Your task to perform on an android device: change the clock display to analog Image 0: 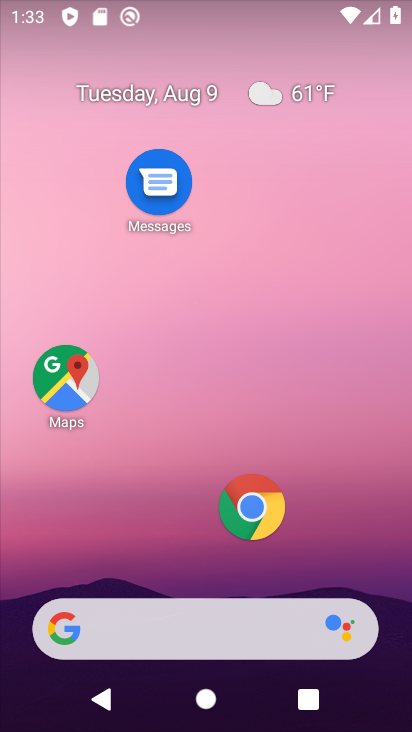
Step 0: drag from (258, 183) to (274, 112)
Your task to perform on an android device: change the clock display to analog Image 1: 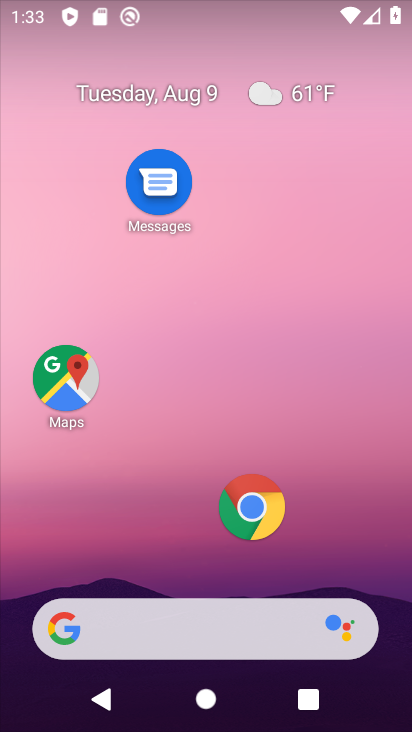
Step 1: drag from (134, 544) to (334, 12)
Your task to perform on an android device: change the clock display to analog Image 2: 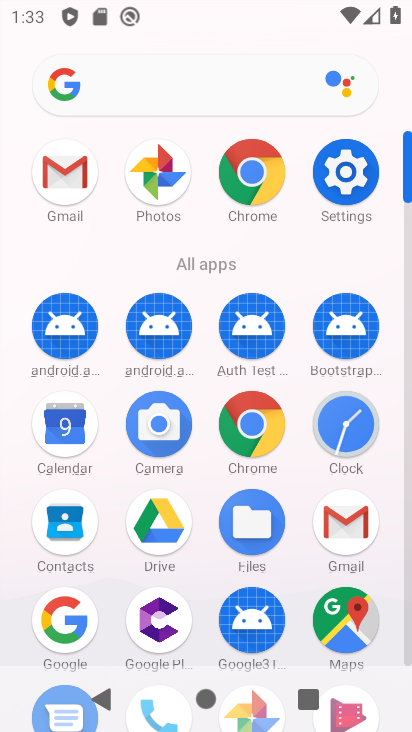
Step 2: click (347, 427)
Your task to perform on an android device: change the clock display to analog Image 3: 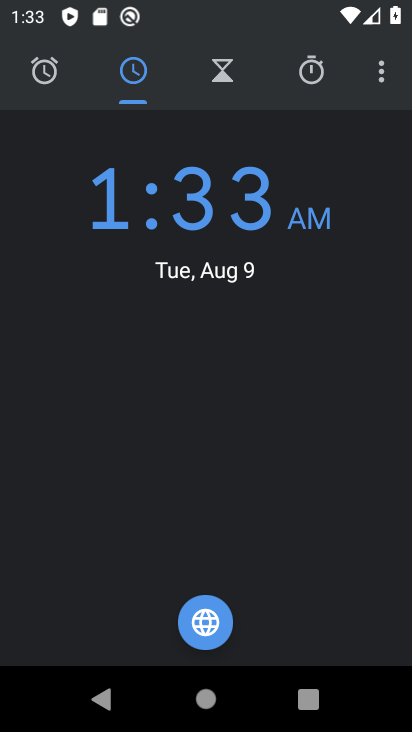
Step 3: click (377, 74)
Your task to perform on an android device: change the clock display to analog Image 4: 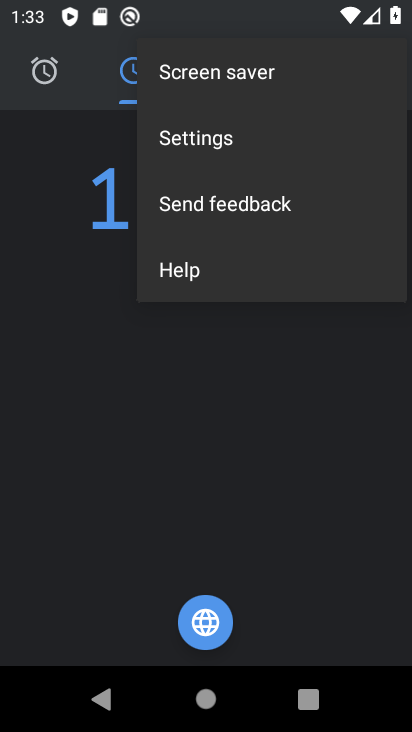
Step 4: click (167, 150)
Your task to perform on an android device: change the clock display to analog Image 5: 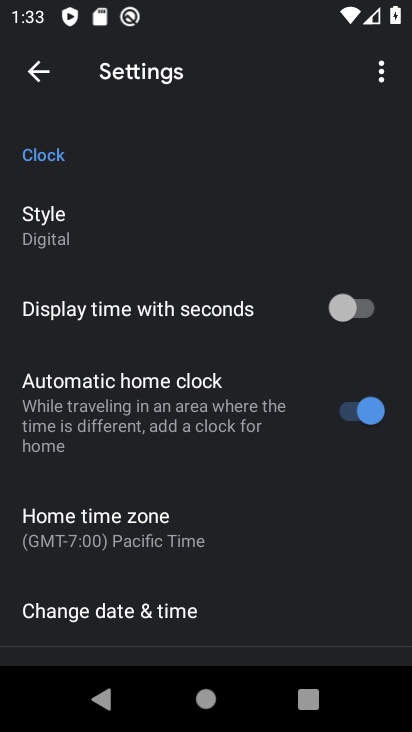
Step 5: click (36, 212)
Your task to perform on an android device: change the clock display to analog Image 6: 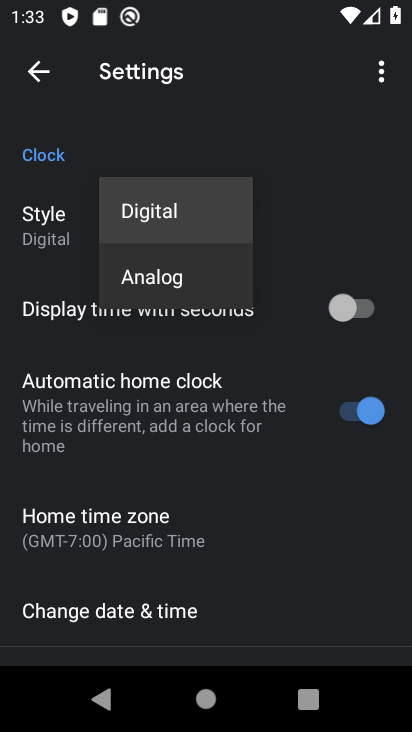
Step 6: click (139, 275)
Your task to perform on an android device: change the clock display to analog Image 7: 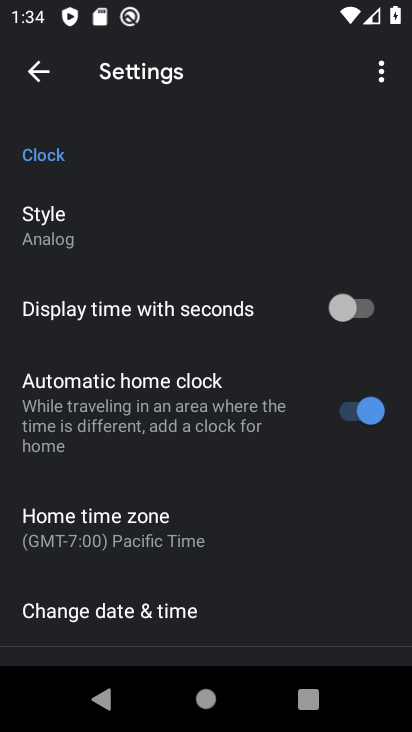
Step 7: task complete